Your task to perform on an android device: Go to internet settings Image 0: 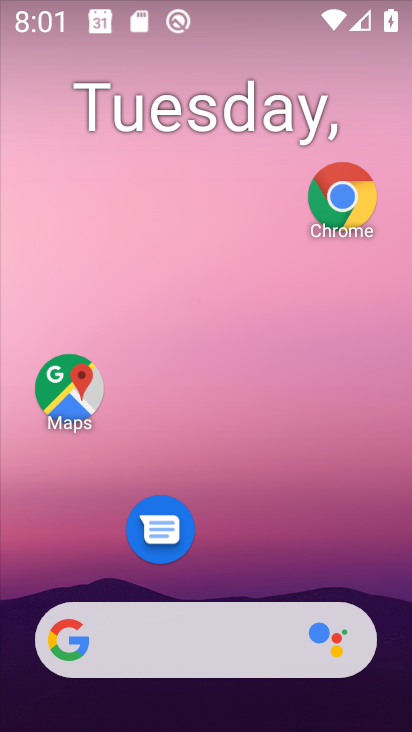
Step 0: drag from (236, 577) to (345, 0)
Your task to perform on an android device: Go to internet settings Image 1: 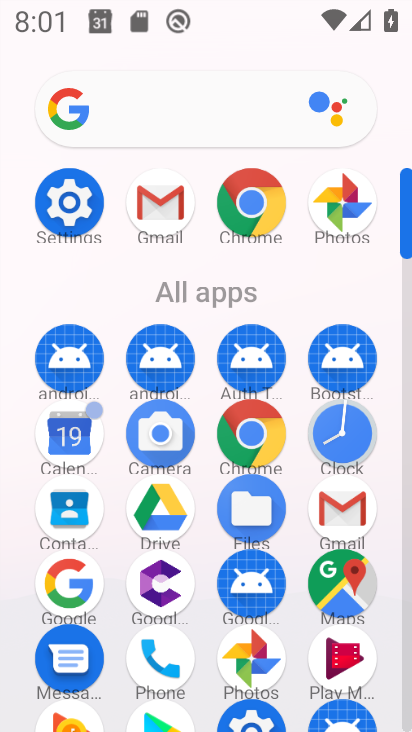
Step 1: click (72, 223)
Your task to perform on an android device: Go to internet settings Image 2: 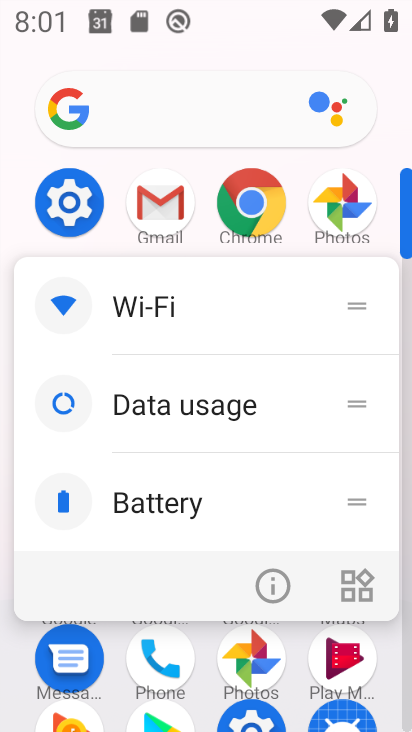
Step 2: click (72, 223)
Your task to perform on an android device: Go to internet settings Image 3: 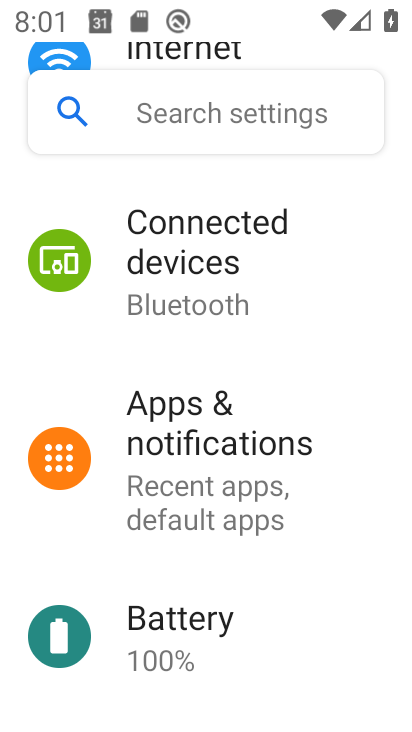
Step 3: drag from (203, 265) to (181, 702)
Your task to perform on an android device: Go to internet settings Image 4: 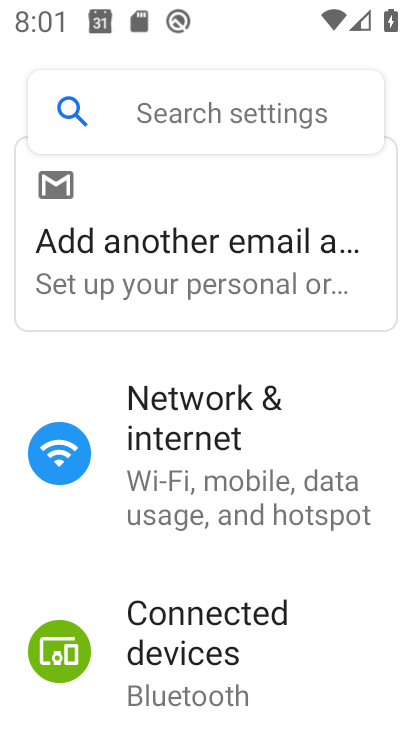
Step 4: click (181, 467)
Your task to perform on an android device: Go to internet settings Image 5: 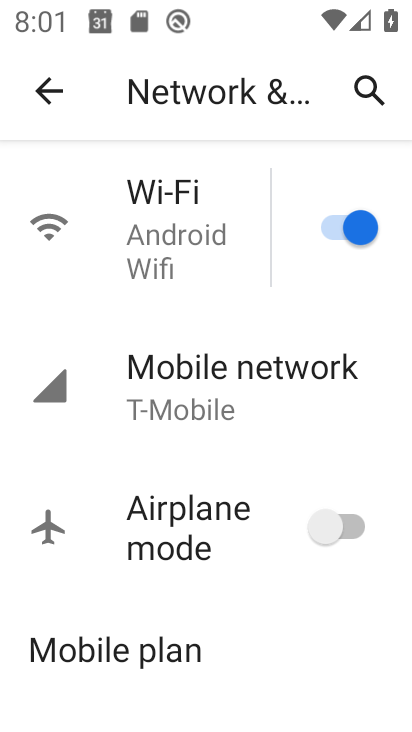
Step 5: task complete